Your task to perform on an android device: toggle wifi Image 0: 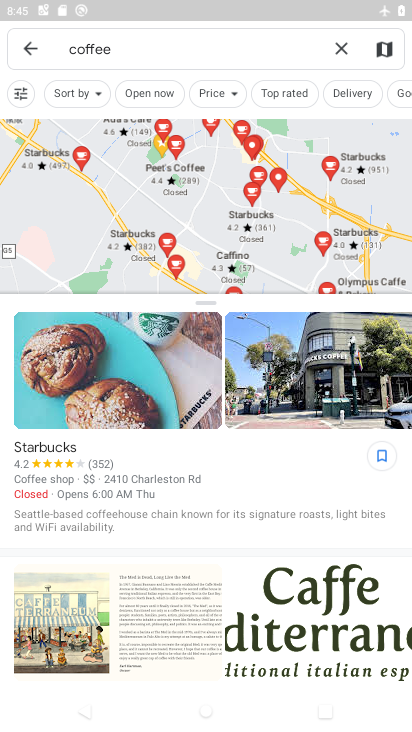
Step 0: press home button
Your task to perform on an android device: toggle wifi Image 1: 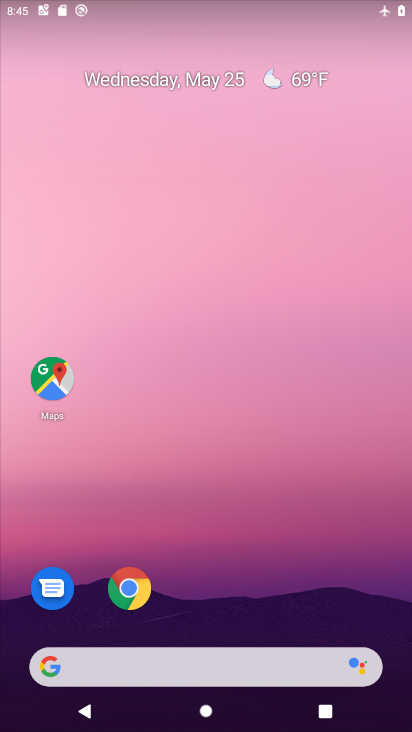
Step 1: drag from (225, 574) to (260, 419)
Your task to perform on an android device: toggle wifi Image 2: 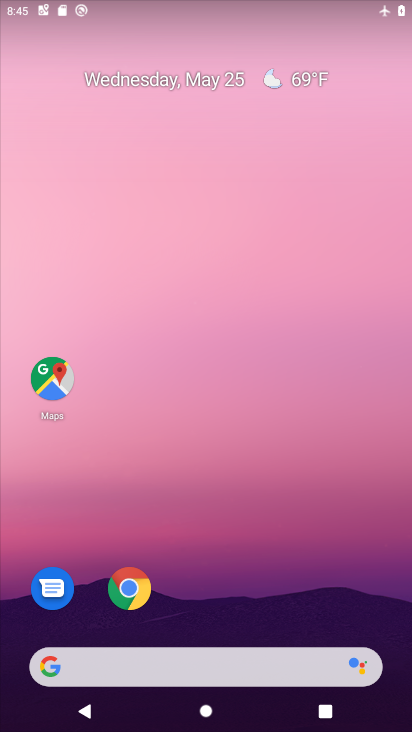
Step 2: drag from (293, 603) to (343, 219)
Your task to perform on an android device: toggle wifi Image 3: 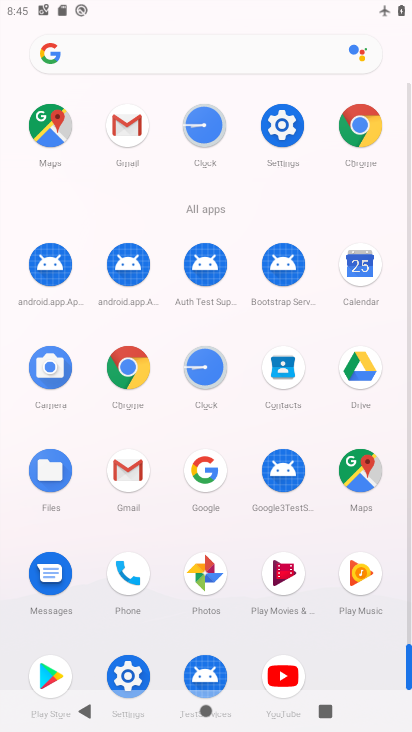
Step 3: click (281, 130)
Your task to perform on an android device: toggle wifi Image 4: 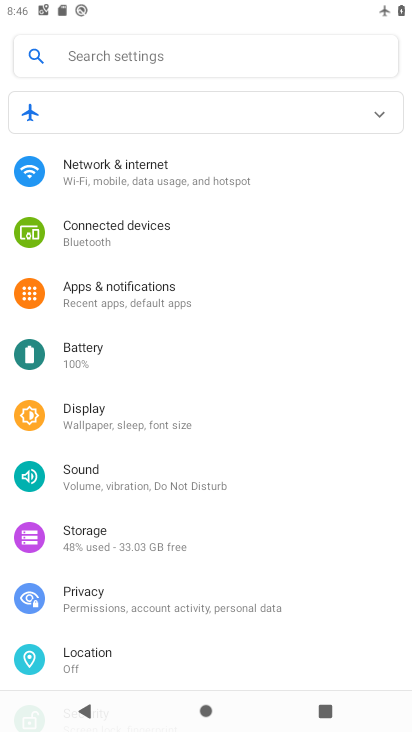
Step 4: click (171, 178)
Your task to perform on an android device: toggle wifi Image 5: 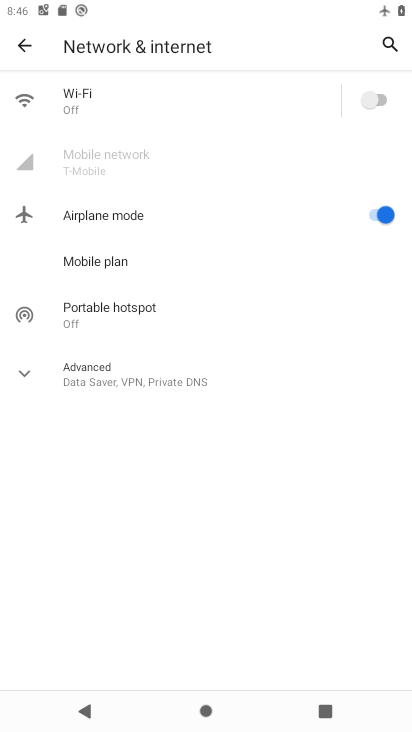
Step 5: click (361, 99)
Your task to perform on an android device: toggle wifi Image 6: 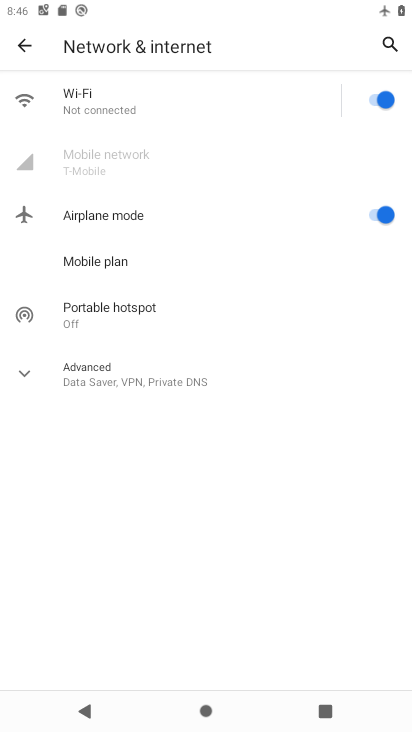
Step 6: task complete